Your task to perform on an android device: open chrome privacy settings Image 0: 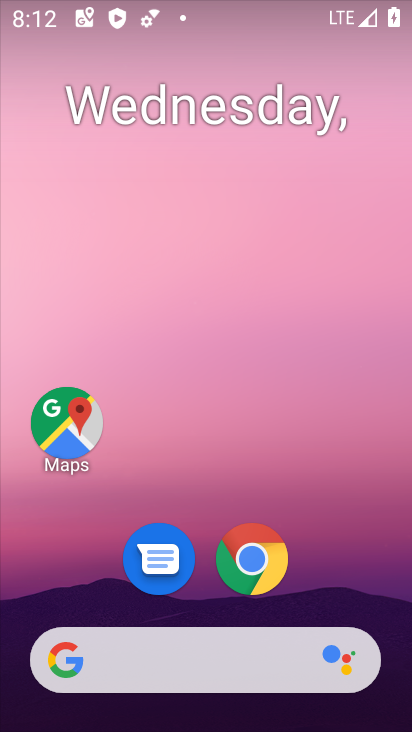
Step 0: click (245, 562)
Your task to perform on an android device: open chrome privacy settings Image 1: 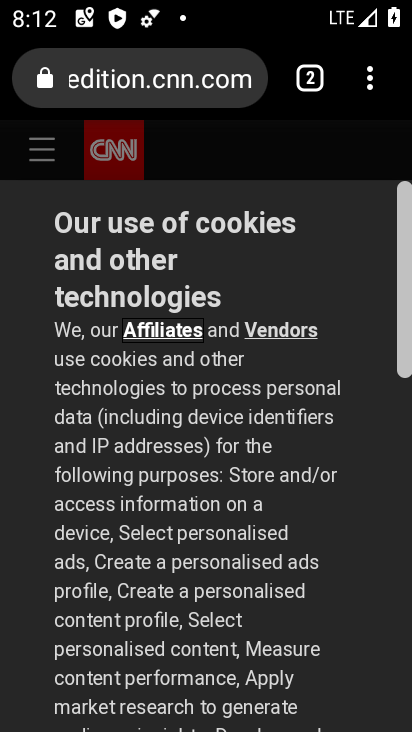
Step 1: drag from (364, 73) to (119, 609)
Your task to perform on an android device: open chrome privacy settings Image 2: 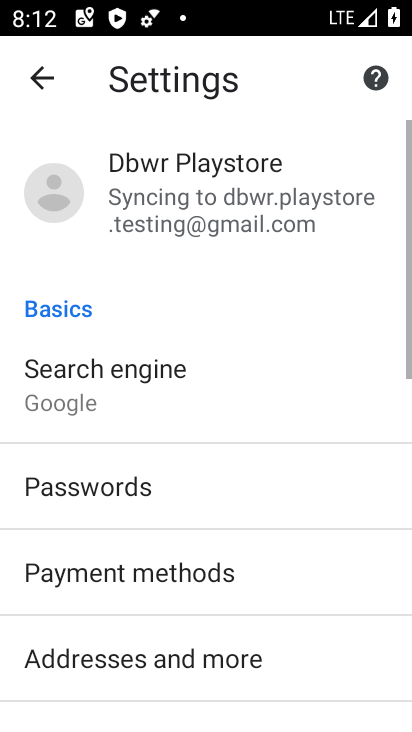
Step 2: drag from (129, 586) to (196, 178)
Your task to perform on an android device: open chrome privacy settings Image 3: 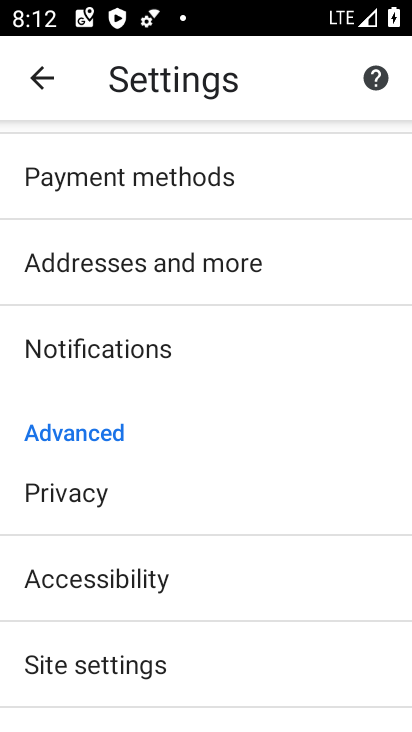
Step 3: click (45, 505)
Your task to perform on an android device: open chrome privacy settings Image 4: 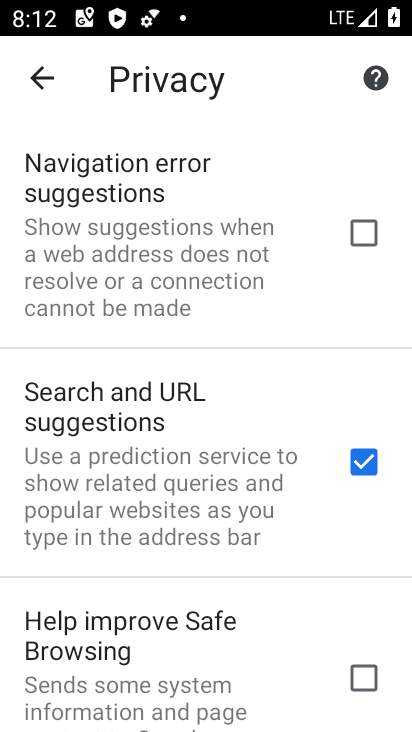
Step 4: task complete